Your task to perform on an android device: Search for pizza restaurants on Maps Image 0: 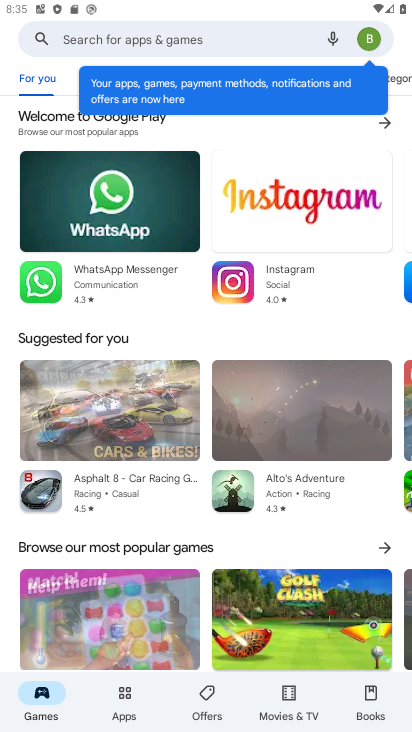
Step 0: press home button
Your task to perform on an android device: Search for pizza restaurants on Maps Image 1: 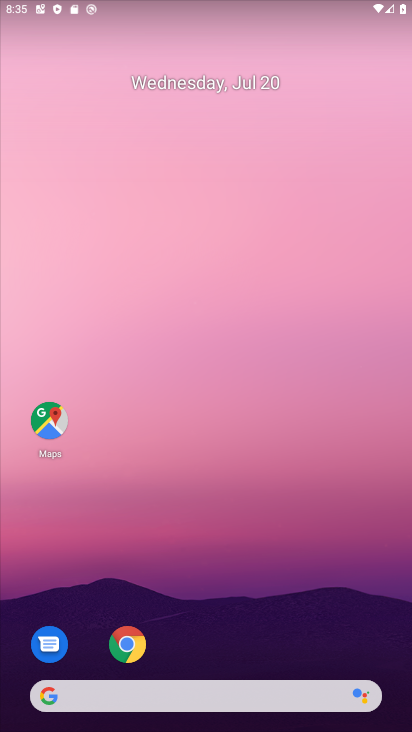
Step 1: click (40, 446)
Your task to perform on an android device: Search for pizza restaurants on Maps Image 2: 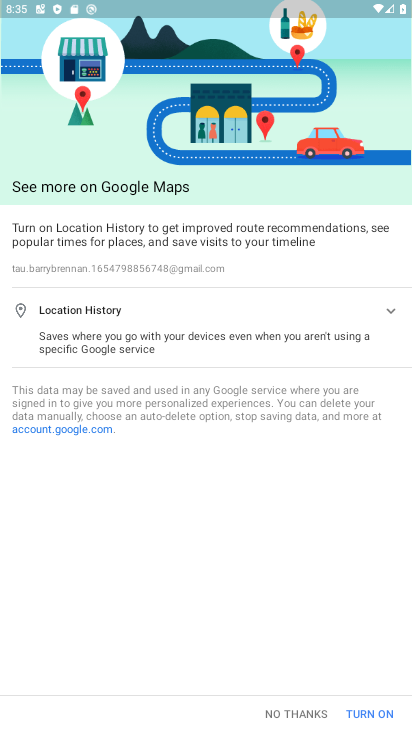
Step 2: click (325, 718)
Your task to perform on an android device: Search for pizza restaurants on Maps Image 3: 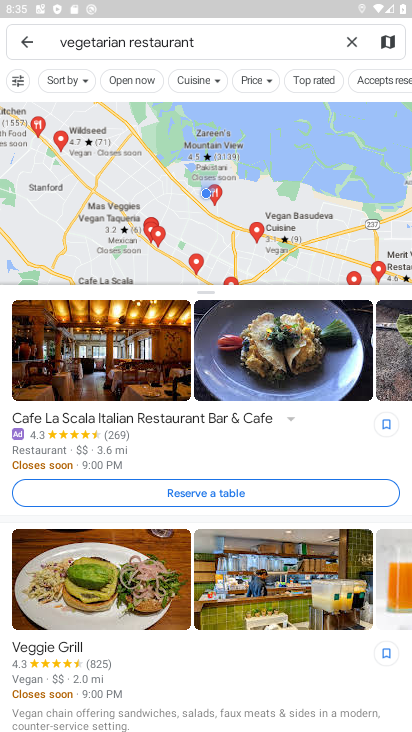
Step 3: click (350, 40)
Your task to perform on an android device: Search for pizza restaurants on Maps Image 4: 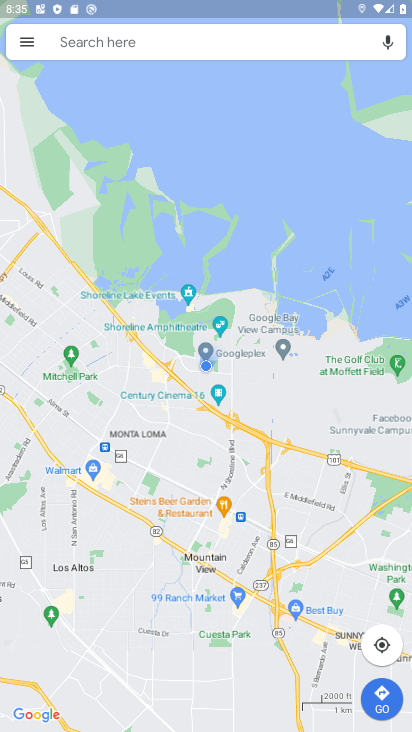
Step 4: click (206, 47)
Your task to perform on an android device: Search for pizza restaurants on Maps Image 5: 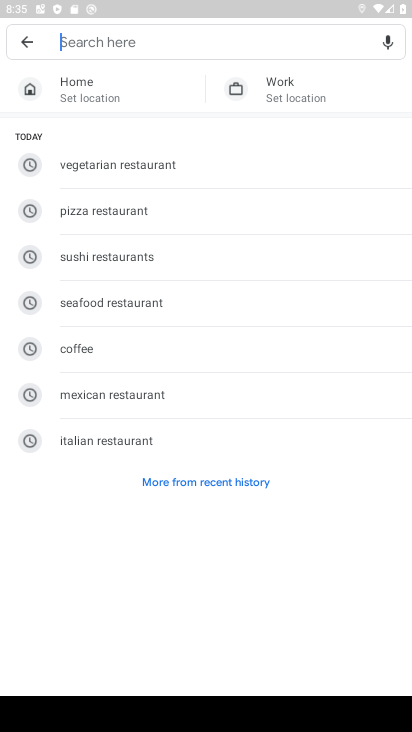
Step 5: click (193, 215)
Your task to perform on an android device: Search for pizza restaurants on Maps Image 6: 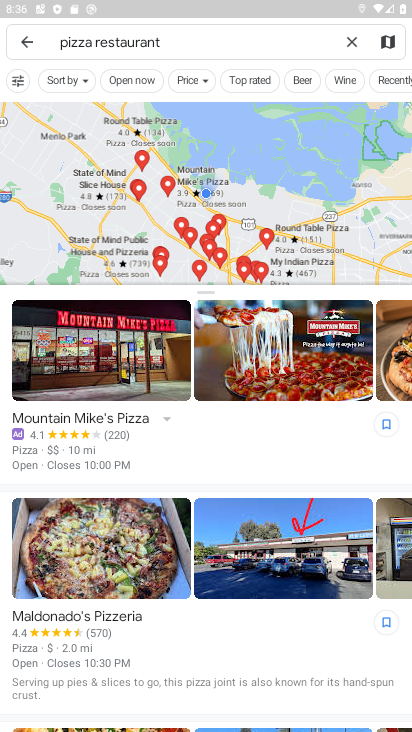
Step 6: task complete